Your task to perform on an android device: Open sound settings Image 0: 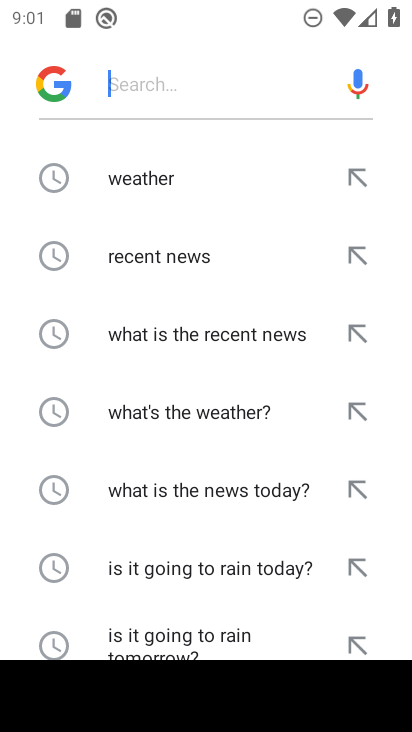
Step 0: press home button
Your task to perform on an android device: Open sound settings Image 1: 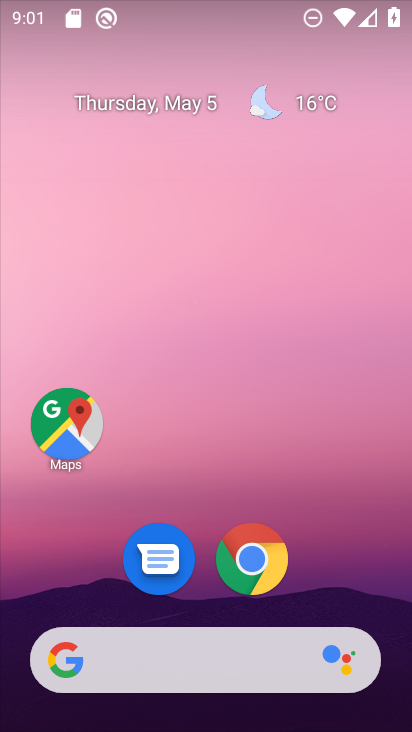
Step 1: drag from (354, 541) to (384, 23)
Your task to perform on an android device: Open sound settings Image 2: 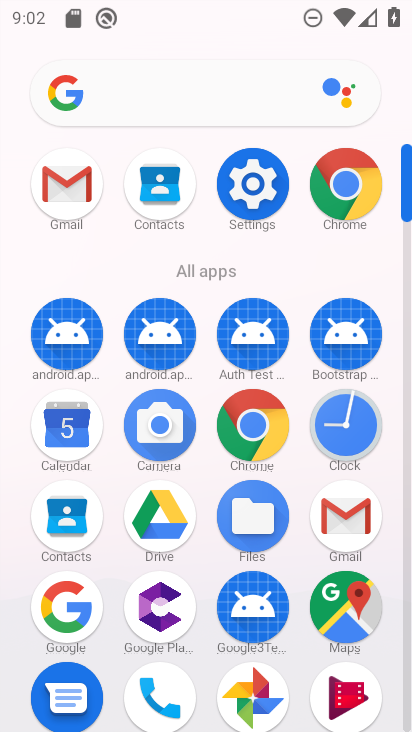
Step 2: click (255, 193)
Your task to perform on an android device: Open sound settings Image 3: 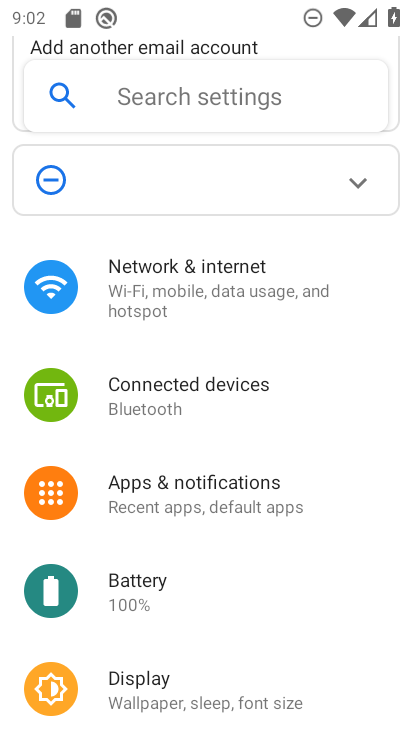
Step 3: drag from (340, 607) to (328, 364)
Your task to perform on an android device: Open sound settings Image 4: 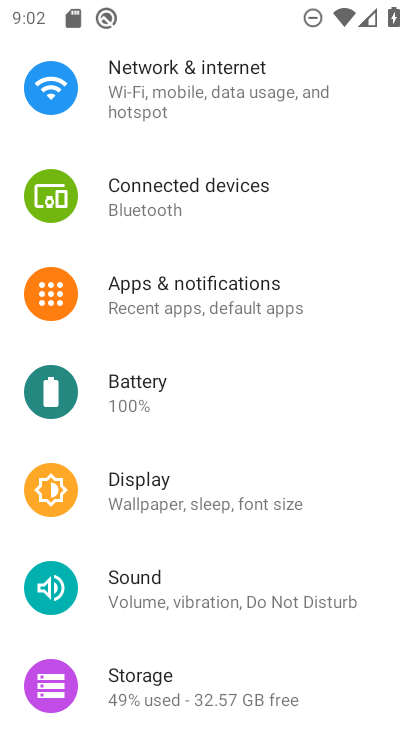
Step 4: click (152, 587)
Your task to perform on an android device: Open sound settings Image 5: 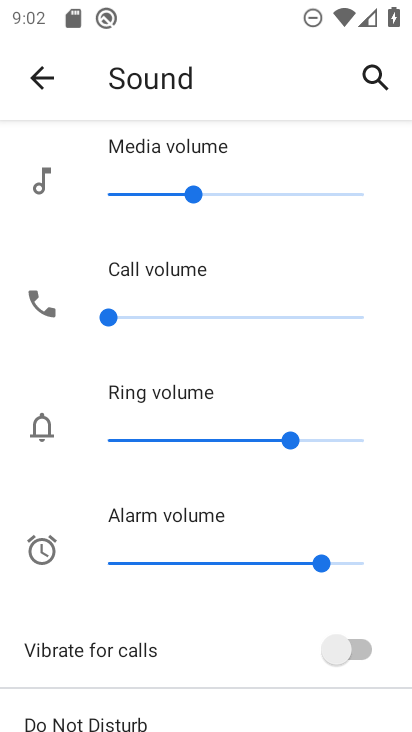
Step 5: task complete